Your task to perform on an android device: Go to Yahoo.com Image 0: 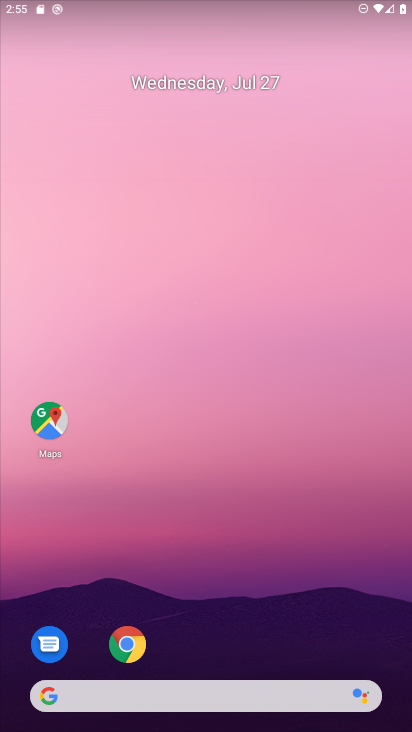
Step 0: click (133, 651)
Your task to perform on an android device: Go to Yahoo.com Image 1: 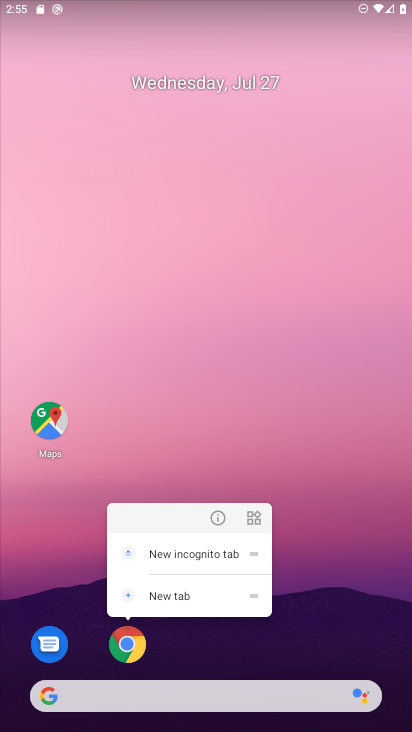
Step 1: click (132, 650)
Your task to perform on an android device: Go to Yahoo.com Image 2: 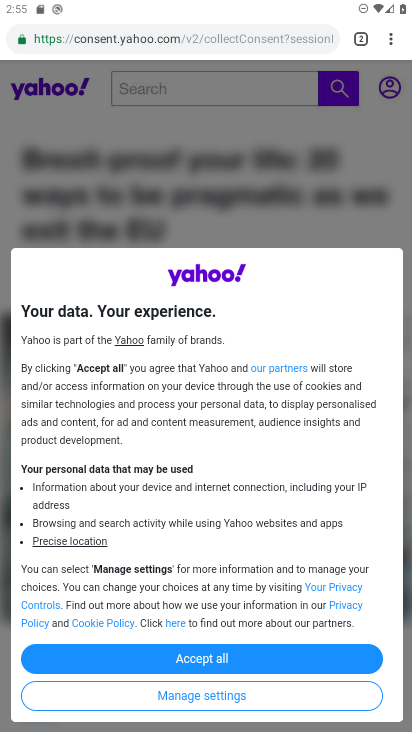
Step 2: click (208, 663)
Your task to perform on an android device: Go to Yahoo.com Image 3: 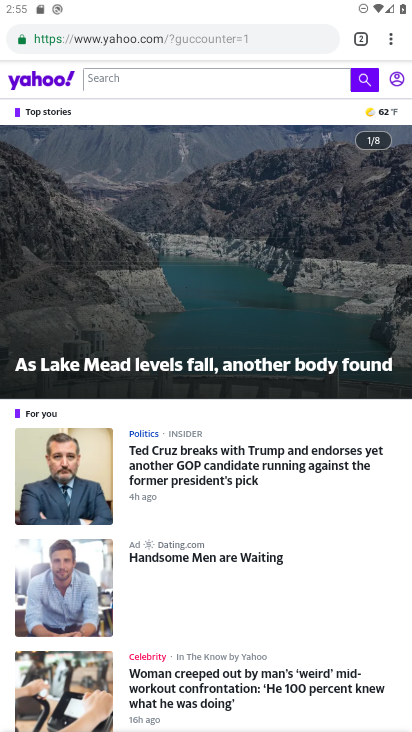
Step 3: task complete